Your task to perform on an android device: check the backup settings in the google photos Image 0: 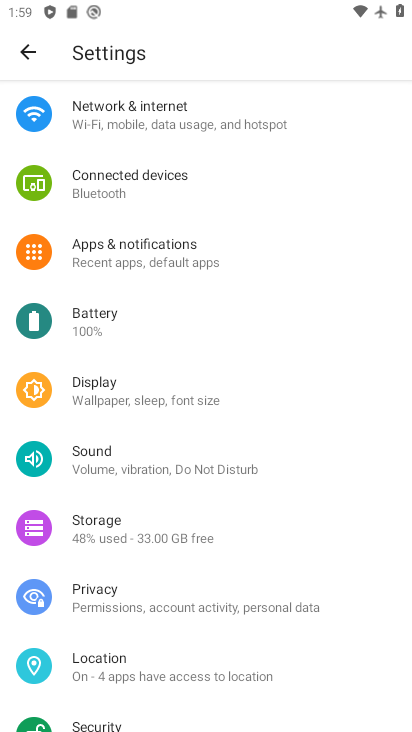
Step 0: press back button
Your task to perform on an android device: check the backup settings in the google photos Image 1: 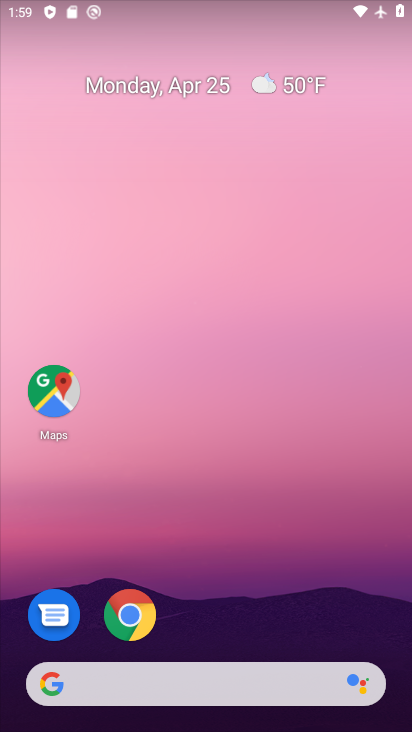
Step 1: drag from (188, 473) to (168, 68)
Your task to perform on an android device: check the backup settings in the google photos Image 2: 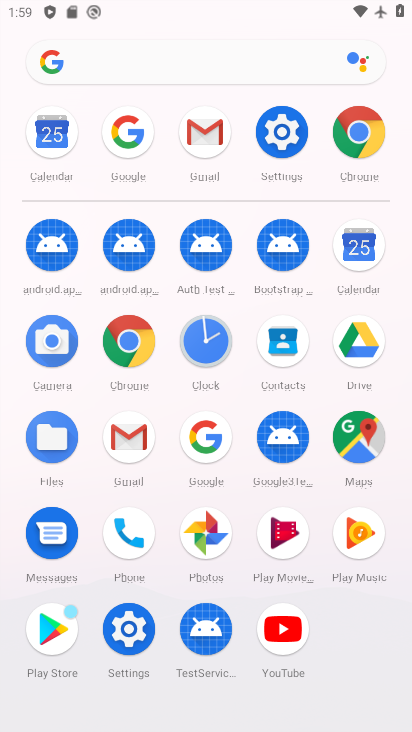
Step 2: click (205, 531)
Your task to perform on an android device: check the backup settings in the google photos Image 3: 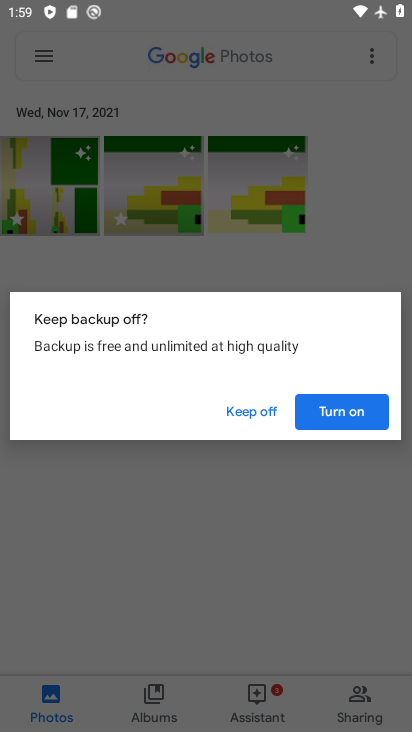
Step 3: click (262, 416)
Your task to perform on an android device: check the backup settings in the google photos Image 4: 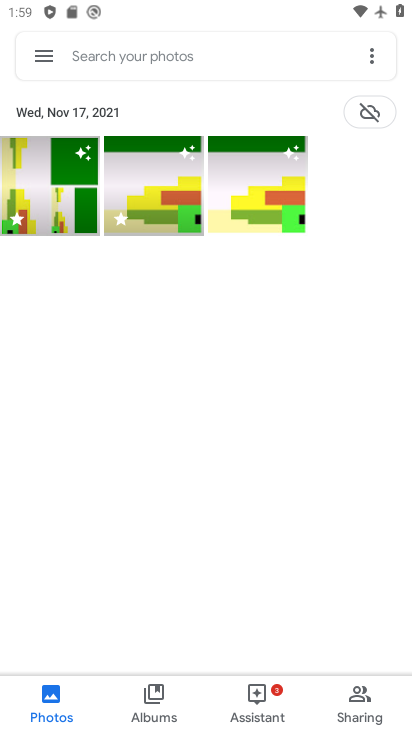
Step 4: click (44, 60)
Your task to perform on an android device: check the backup settings in the google photos Image 5: 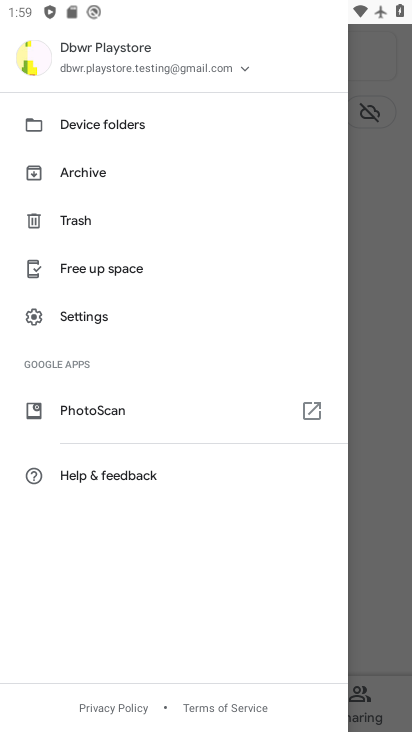
Step 5: click (85, 316)
Your task to perform on an android device: check the backup settings in the google photos Image 6: 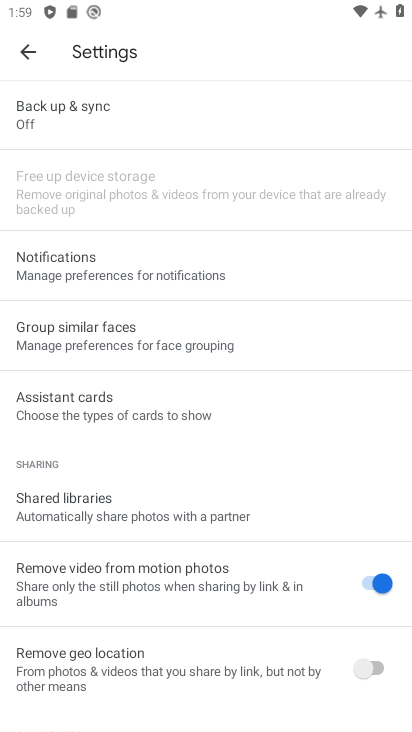
Step 6: click (95, 106)
Your task to perform on an android device: check the backup settings in the google photos Image 7: 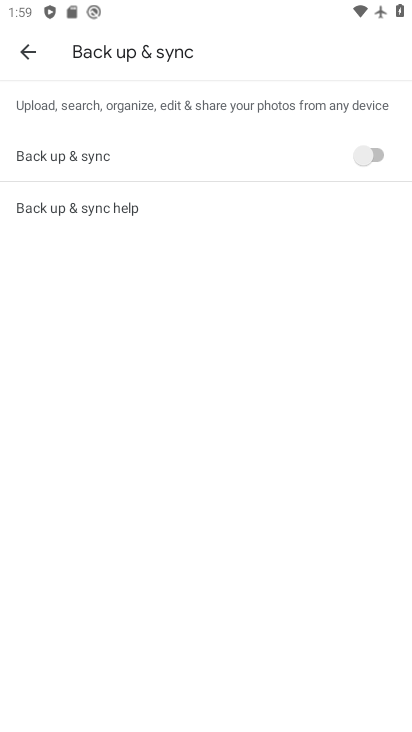
Step 7: task complete